Your task to perform on an android device: Is it going to rain today? Image 0: 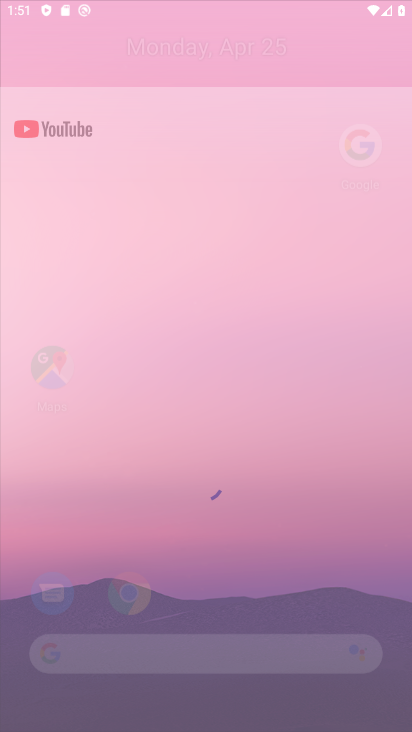
Step 0: drag from (203, 1) to (352, 10)
Your task to perform on an android device: Is it going to rain today? Image 1: 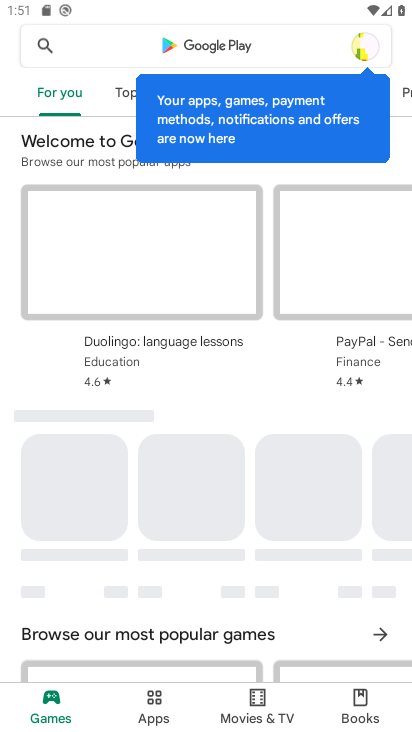
Step 1: press home button
Your task to perform on an android device: Is it going to rain today? Image 2: 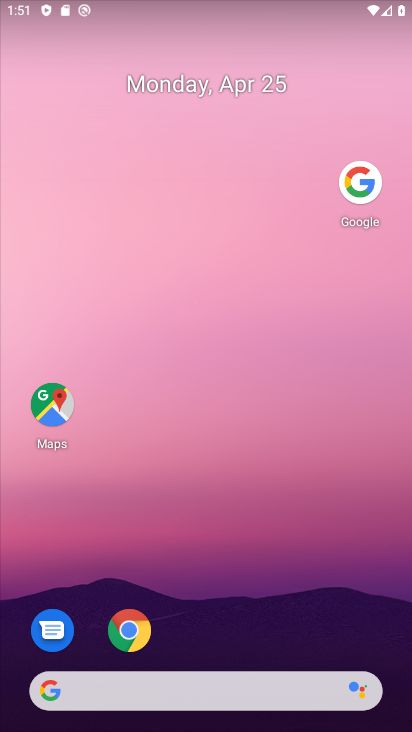
Step 2: click (190, 679)
Your task to perform on an android device: Is it going to rain today? Image 3: 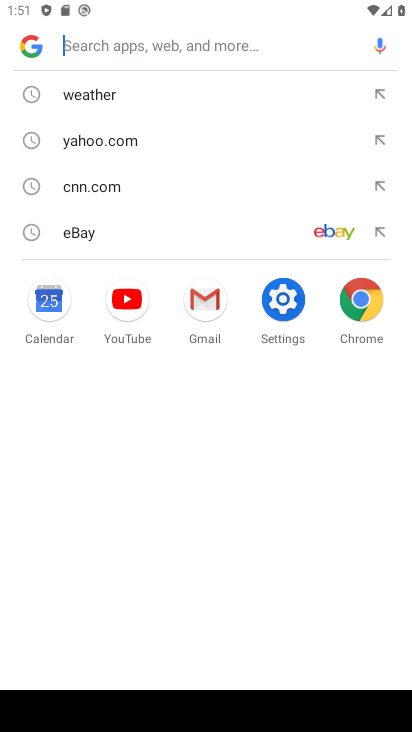
Step 3: click (106, 85)
Your task to perform on an android device: Is it going to rain today? Image 4: 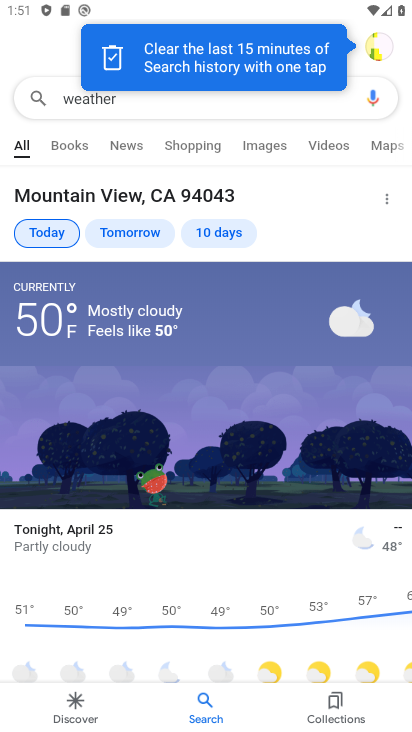
Step 4: task complete